Your task to perform on an android device: change alarm snooze length Image 0: 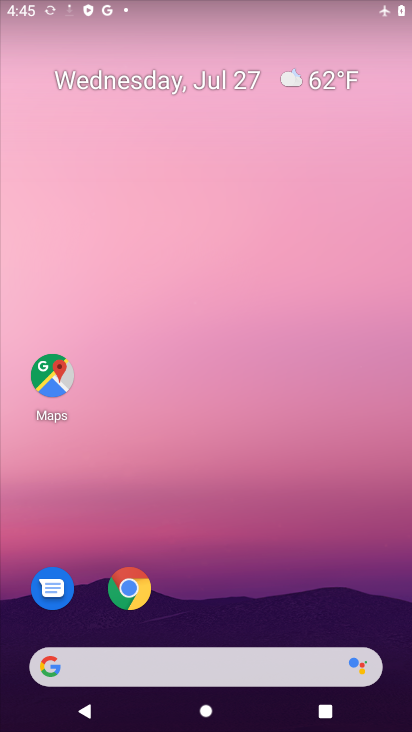
Step 0: click (182, 6)
Your task to perform on an android device: change alarm snooze length Image 1: 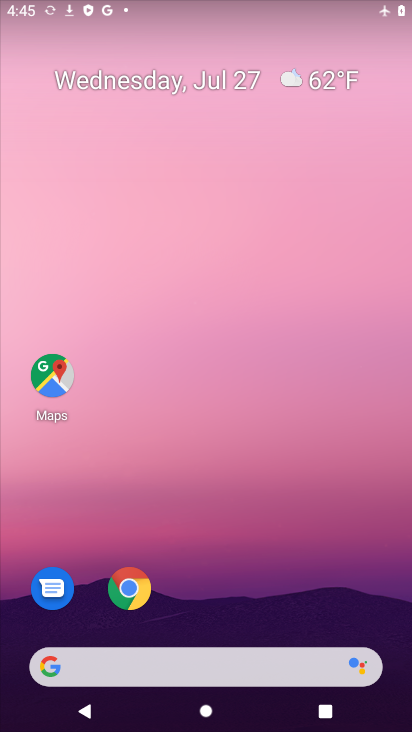
Step 1: drag from (205, 556) to (266, 164)
Your task to perform on an android device: change alarm snooze length Image 2: 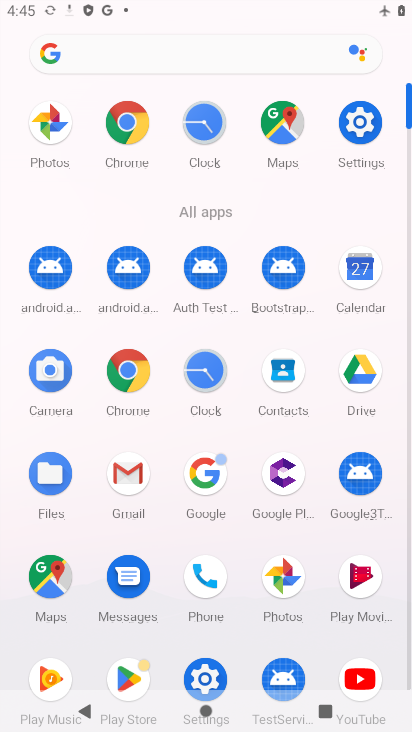
Step 2: click (211, 131)
Your task to perform on an android device: change alarm snooze length Image 3: 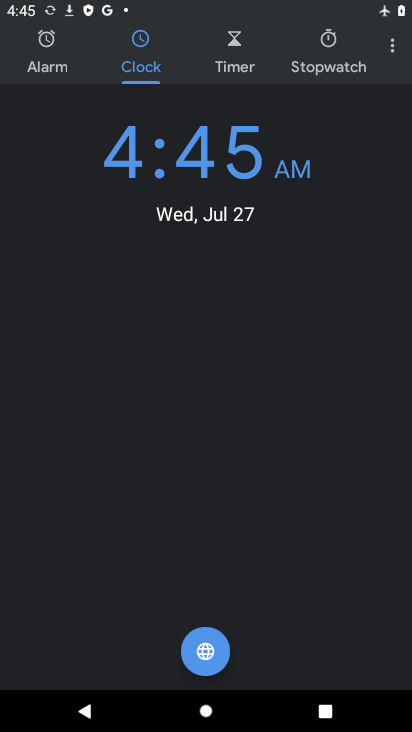
Step 3: click (392, 51)
Your task to perform on an android device: change alarm snooze length Image 4: 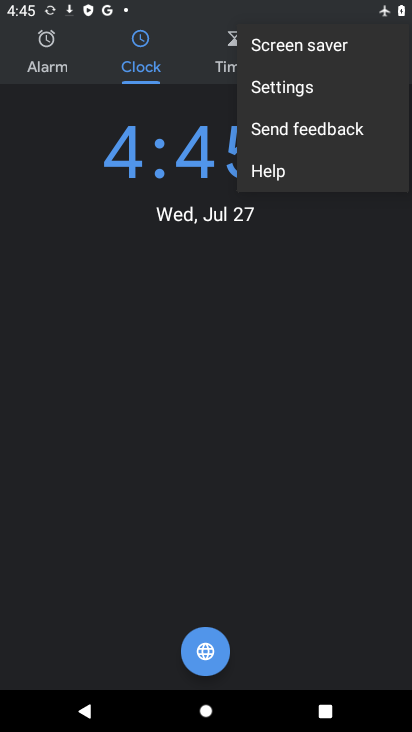
Step 4: click (302, 81)
Your task to perform on an android device: change alarm snooze length Image 5: 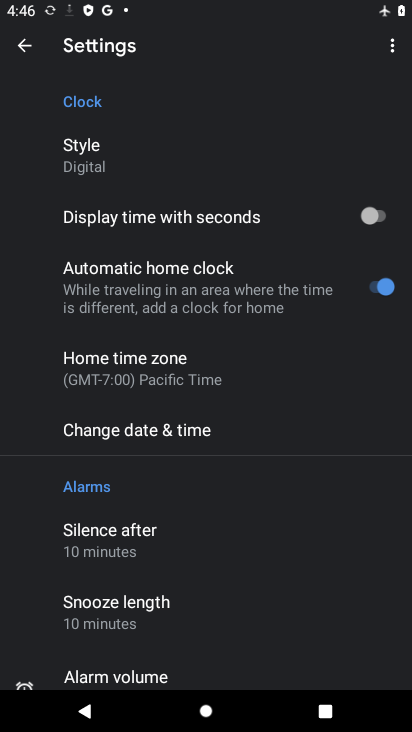
Step 5: click (86, 618)
Your task to perform on an android device: change alarm snooze length Image 6: 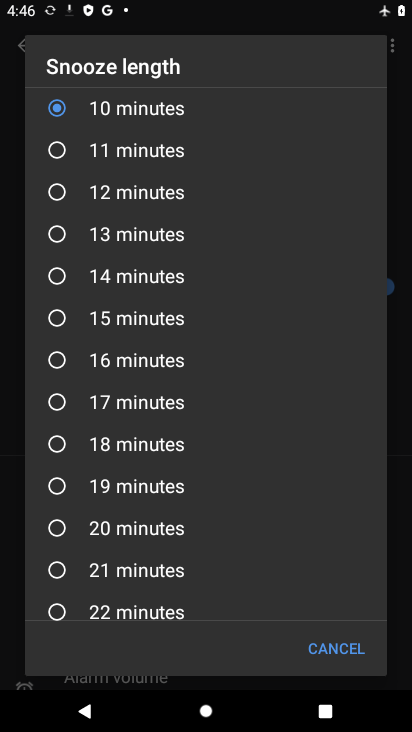
Step 6: click (69, 581)
Your task to perform on an android device: change alarm snooze length Image 7: 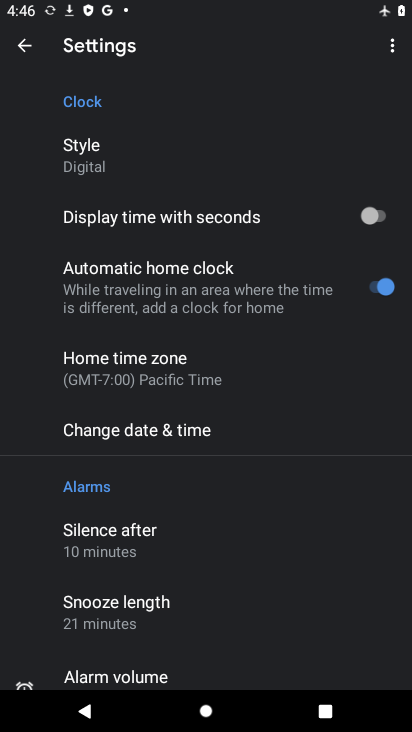
Step 7: task complete